Your task to perform on an android device: What is the news today? Image 0: 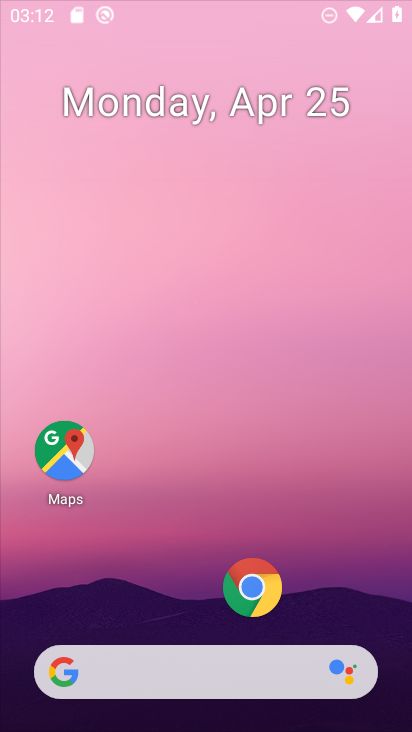
Step 0: drag from (196, 595) to (246, 116)
Your task to perform on an android device: What is the news today? Image 1: 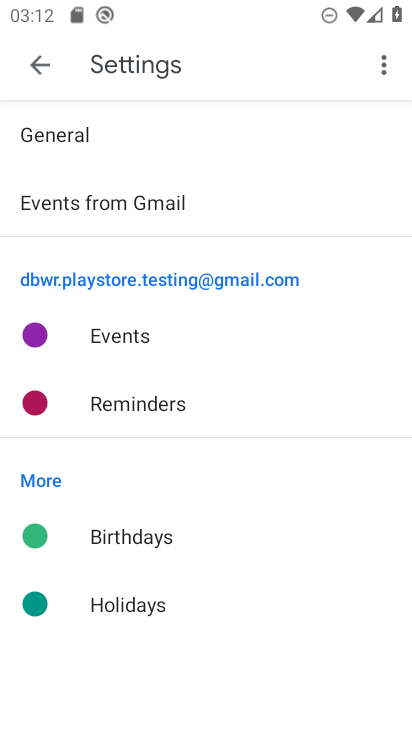
Step 1: task complete